Your task to perform on an android device: Open Yahoo.com Image 0: 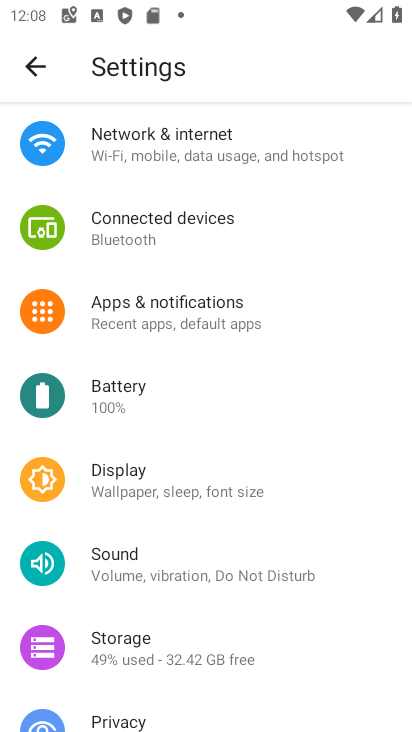
Step 0: press home button
Your task to perform on an android device: Open Yahoo.com Image 1: 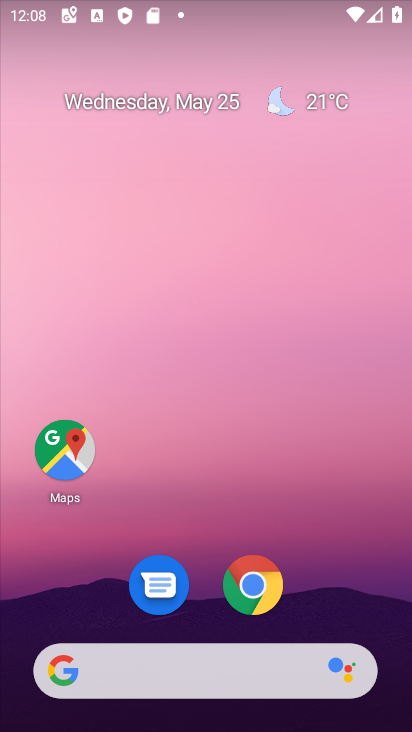
Step 1: click (246, 681)
Your task to perform on an android device: Open Yahoo.com Image 2: 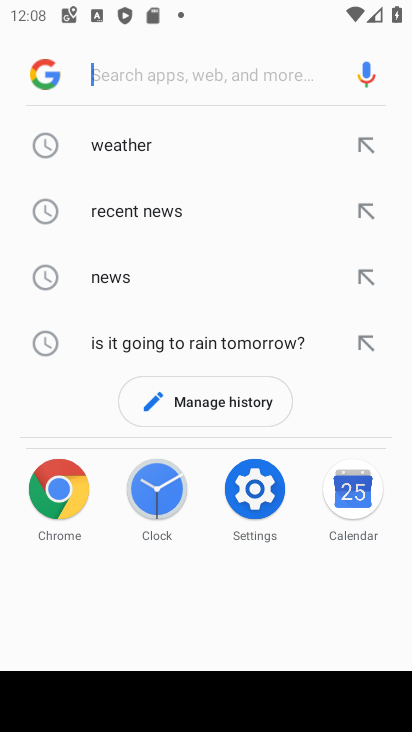
Step 2: type "yahoo.com"
Your task to perform on an android device: Open Yahoo.com Image 3: 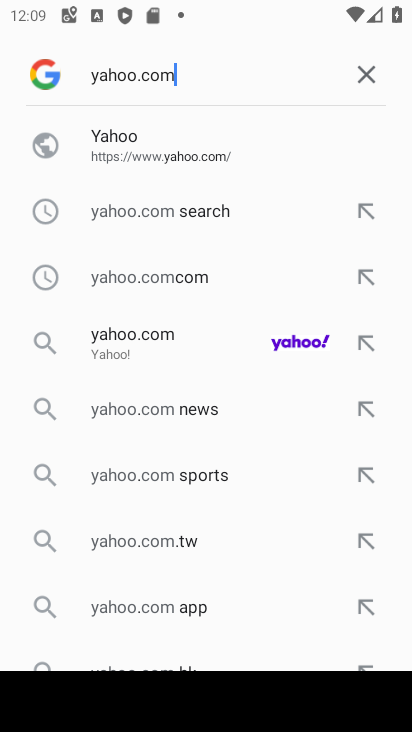
Step 3: click (167, 347)
Your task to perform on an android device: Open Yahoo.com Image 4: 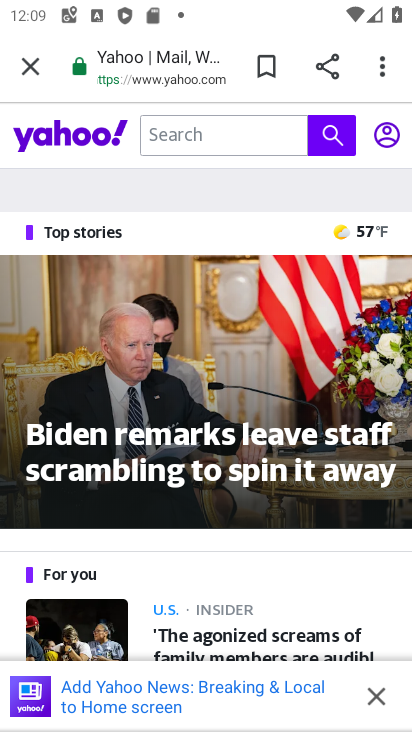
Step 4: task complete